Your task to perform on an android device: uninstall "Adobe Acrobat Reader: Edit PDF" Image 0: 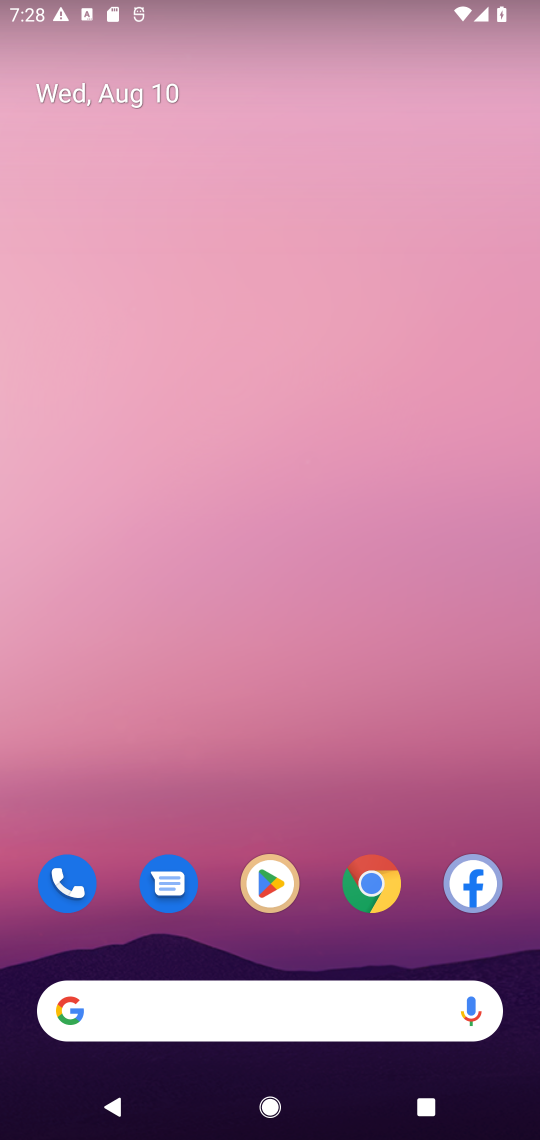
Step 0: drag from (318, 962) to (296, 74)
Your task to perform on an android device: uninstall "Adobe Acrobat Reader: Edit PDF" Image 1: 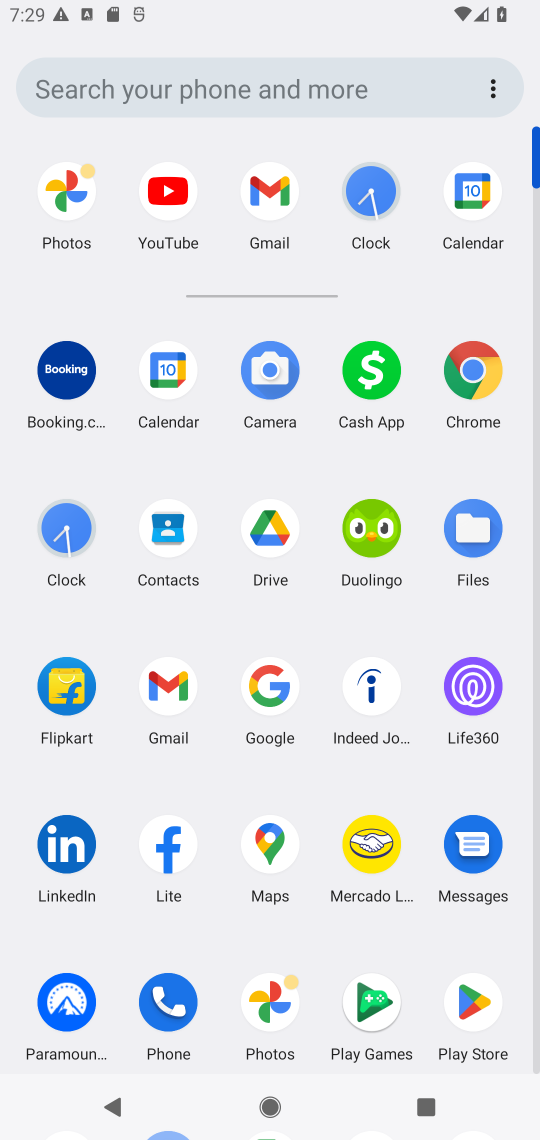
Step 1: click (476, 991)
Your task to perform on an android device: uninstall "Adobe Acrobat Reader: Edit PDF" Image 2: 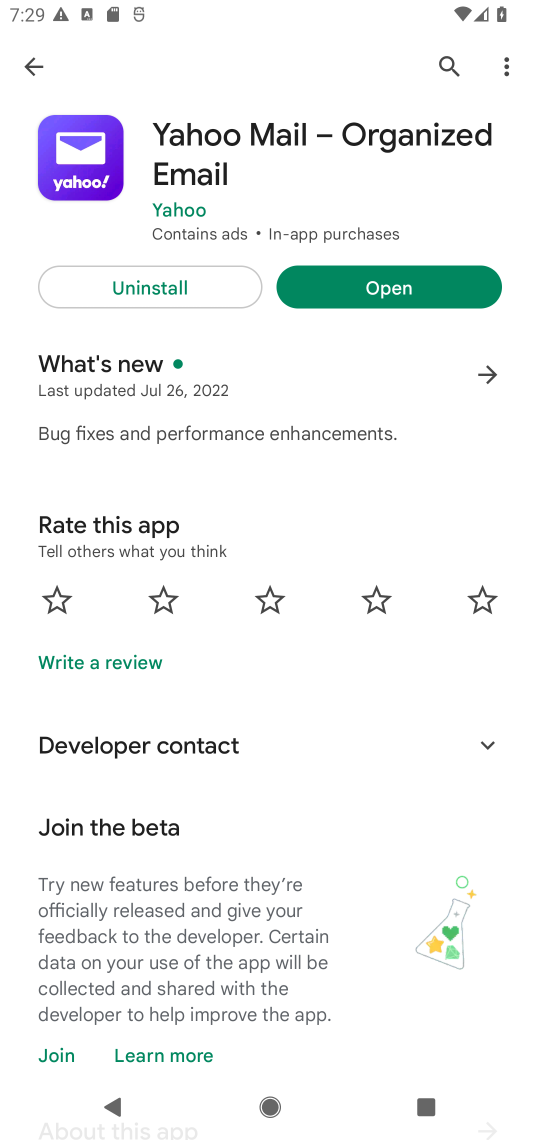
Step 2: click (448, 64)
Your task to perform on an android device: uninstall "Adobe Acrobat Reader: Edit PDF" Image 3: 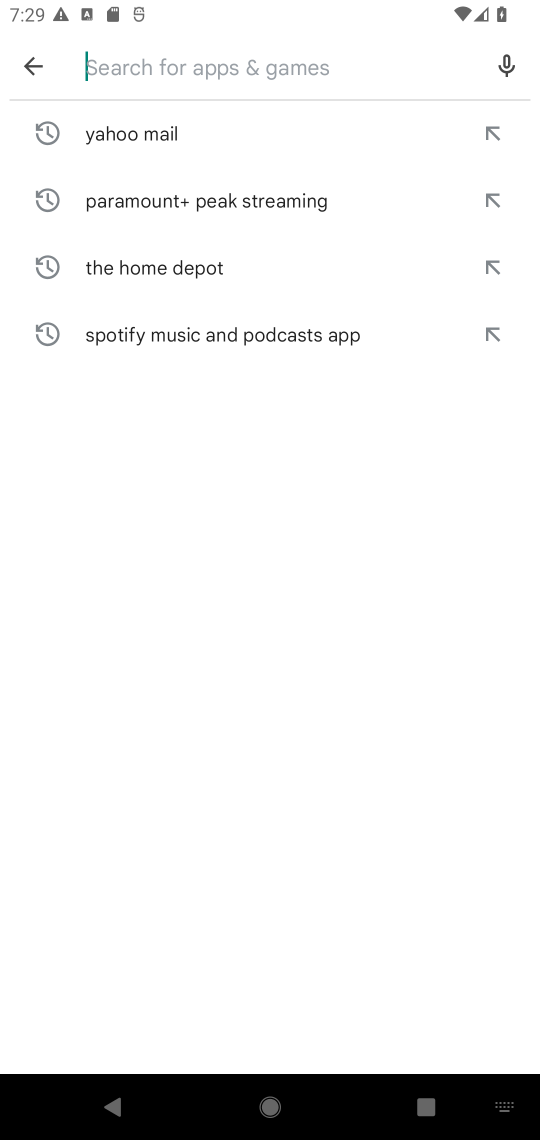
Step 3: type "Adobe Acrobat Reader: Edit PDF"
Your task to perform on an android device: uninstall "Adobe Acrobat Reader: Edit PDF" Image 4: 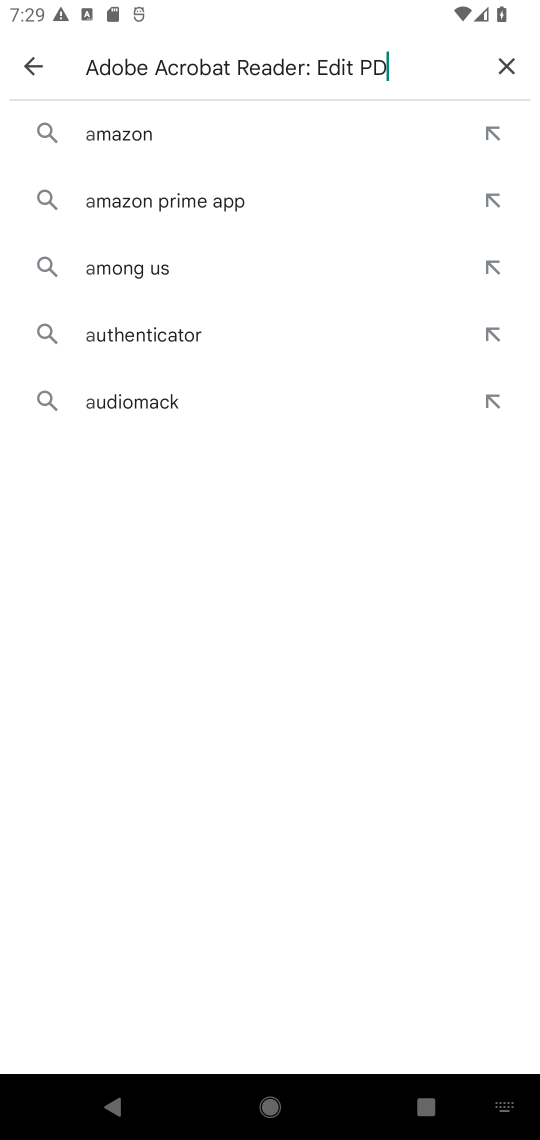
Step 4: type ""
Your task to perform on an android device: uninstall "Adobe Acrobat Reader: Edit PDF" Image 5: 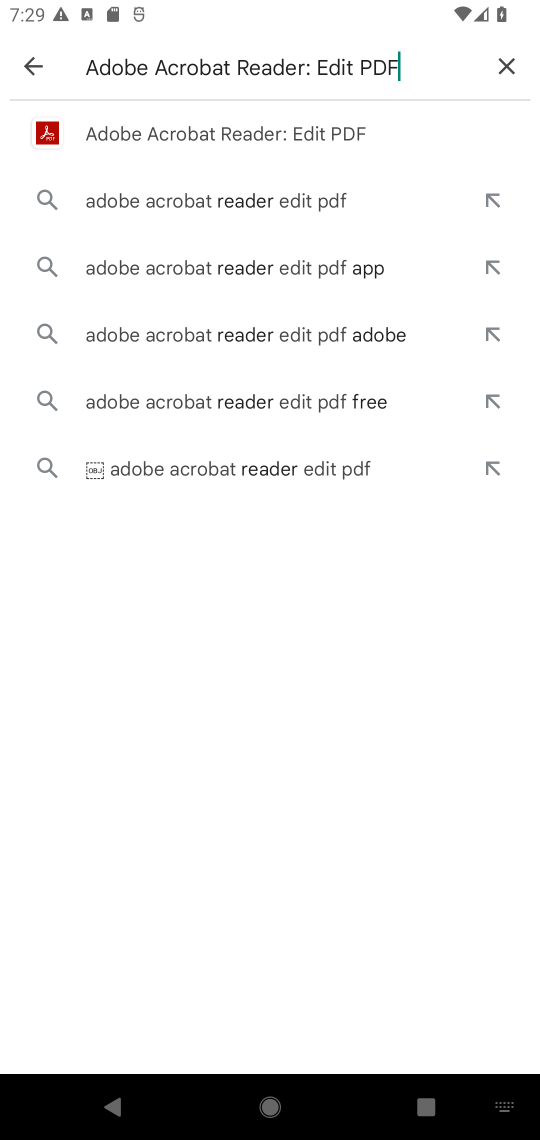
Step 5: click (132, 128)
Your task to perform on an android device: uninstall "Adobe Acrobat Reader: Edit PDF" Image 6: 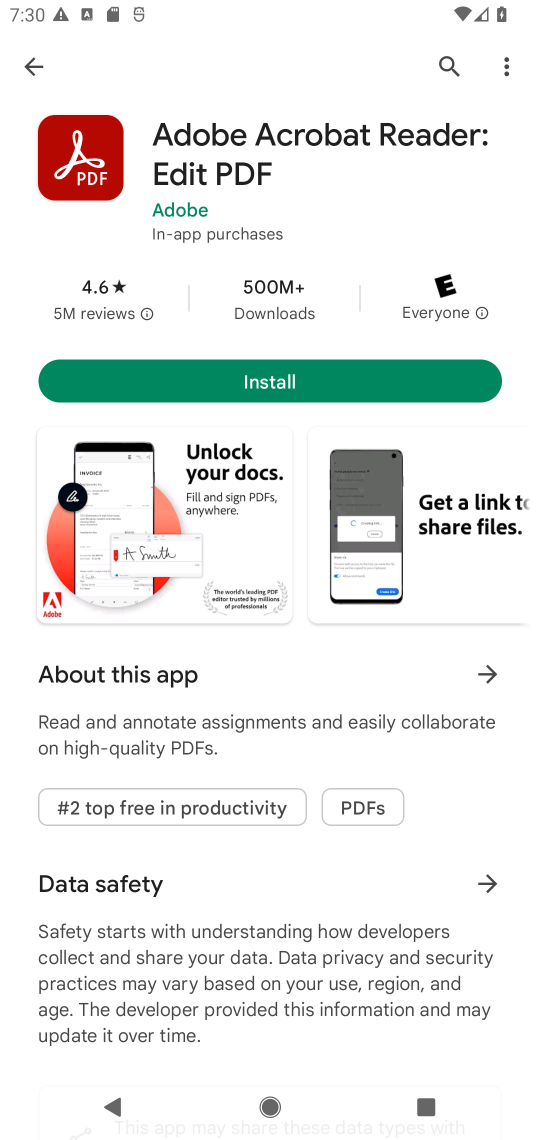
Step 6: task complete